Your task to perform on an android device: toggle notification dots Image 0: 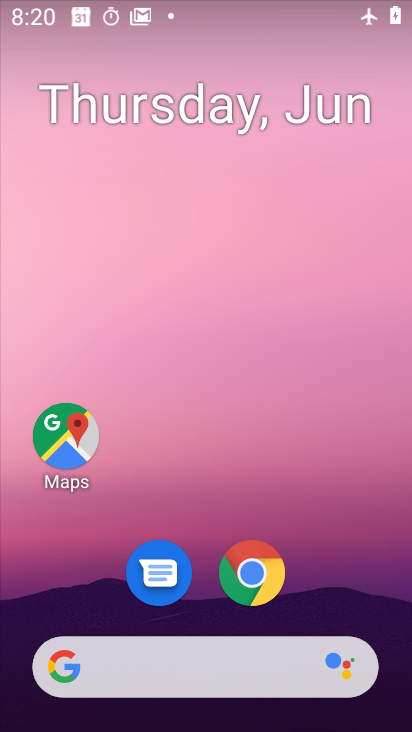
Step 0: drag from (327, 588) to (323, 272)
Your task to perform on an android device: toggle notification dots Image 1: 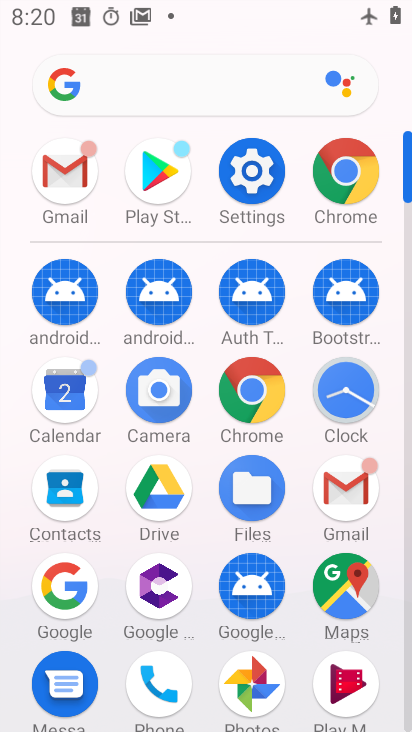
Step 1: click (253, 170)
Your task to perform on an android device: toggle notification dots Image 2: 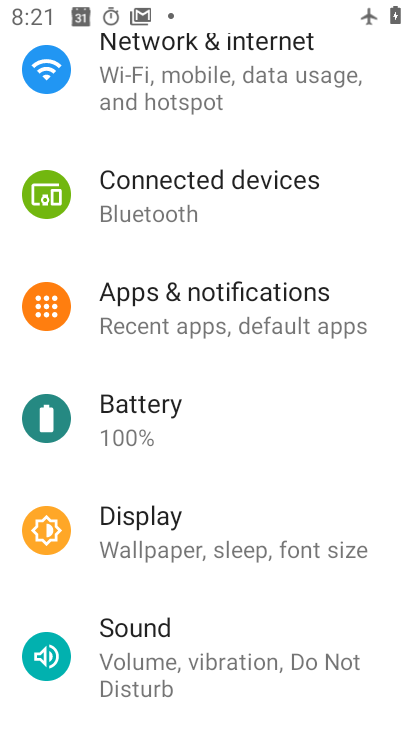
Step 2: drag from (272, 160) to (252, 607)
Your task to perform on an android device: toggle notification dots Image 3: 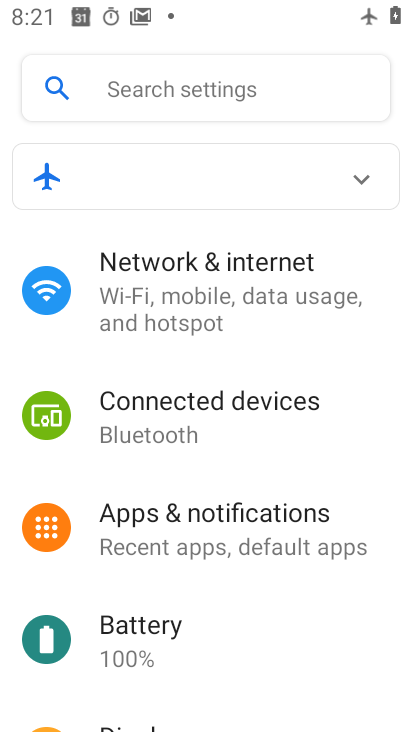
Step 3: click (195, 259)
Your task to perform on an android device: toggle notification dots Image 4: 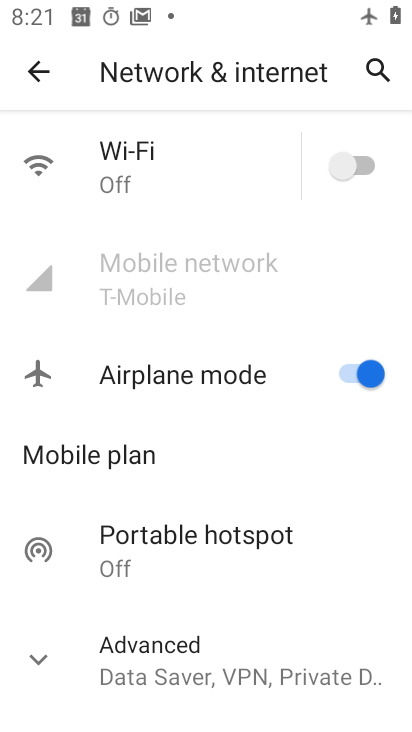
Step 4: click (29, 67)
Your task to perform on an android device: toggle notification dots Image 5: 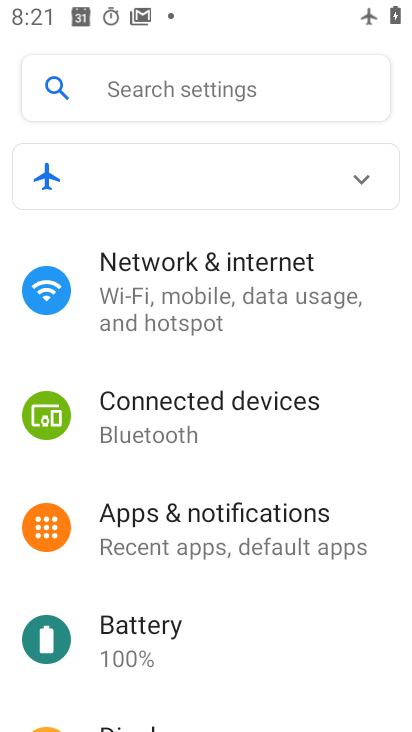
Step 5: click (212, 84)
Your task to perform on an android device: toggle notification dots Image 6: 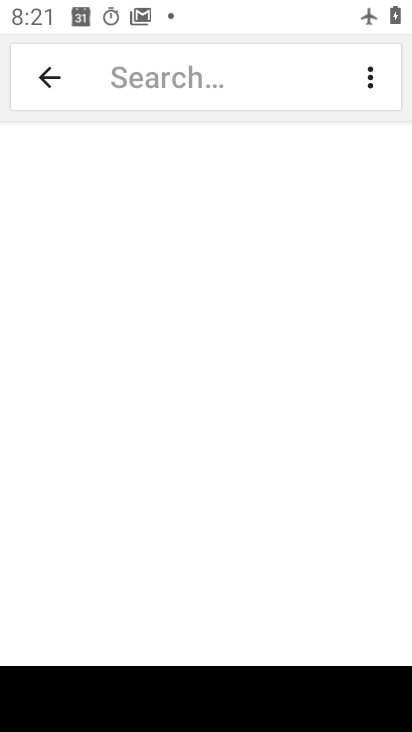
Step 6: type " notification dots"
Your task to perform on an android device: toggle notification dots Image 7: 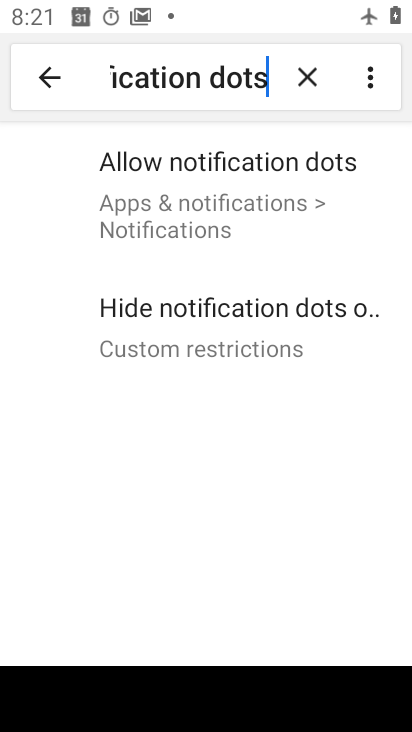
Step 7: click (214, 173)
Your task to perform on an android device: toggle notification dots Image 8: 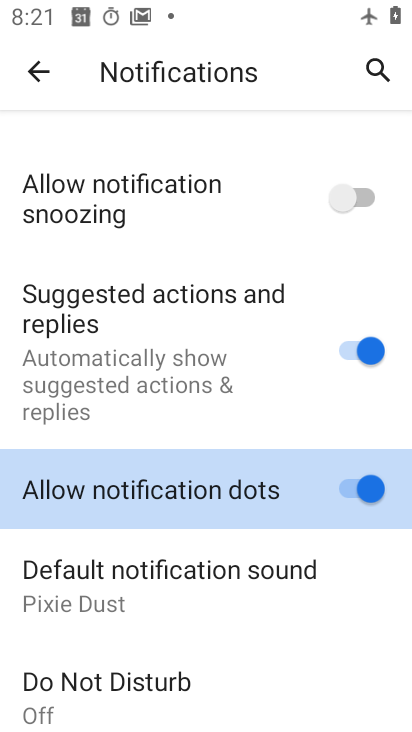
Step 8: click (360, 479)
Your task to perform on an android device: toggle notification dots Image 9: 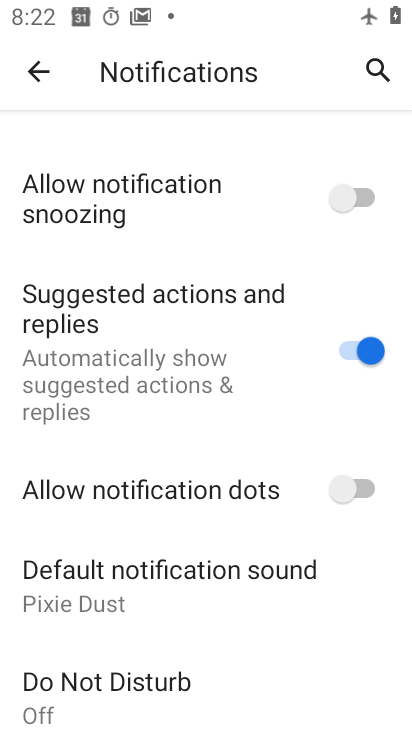
Step 9: task complete